Your task to perform on an android device: Show the shopping cart on target.com. Image 0: 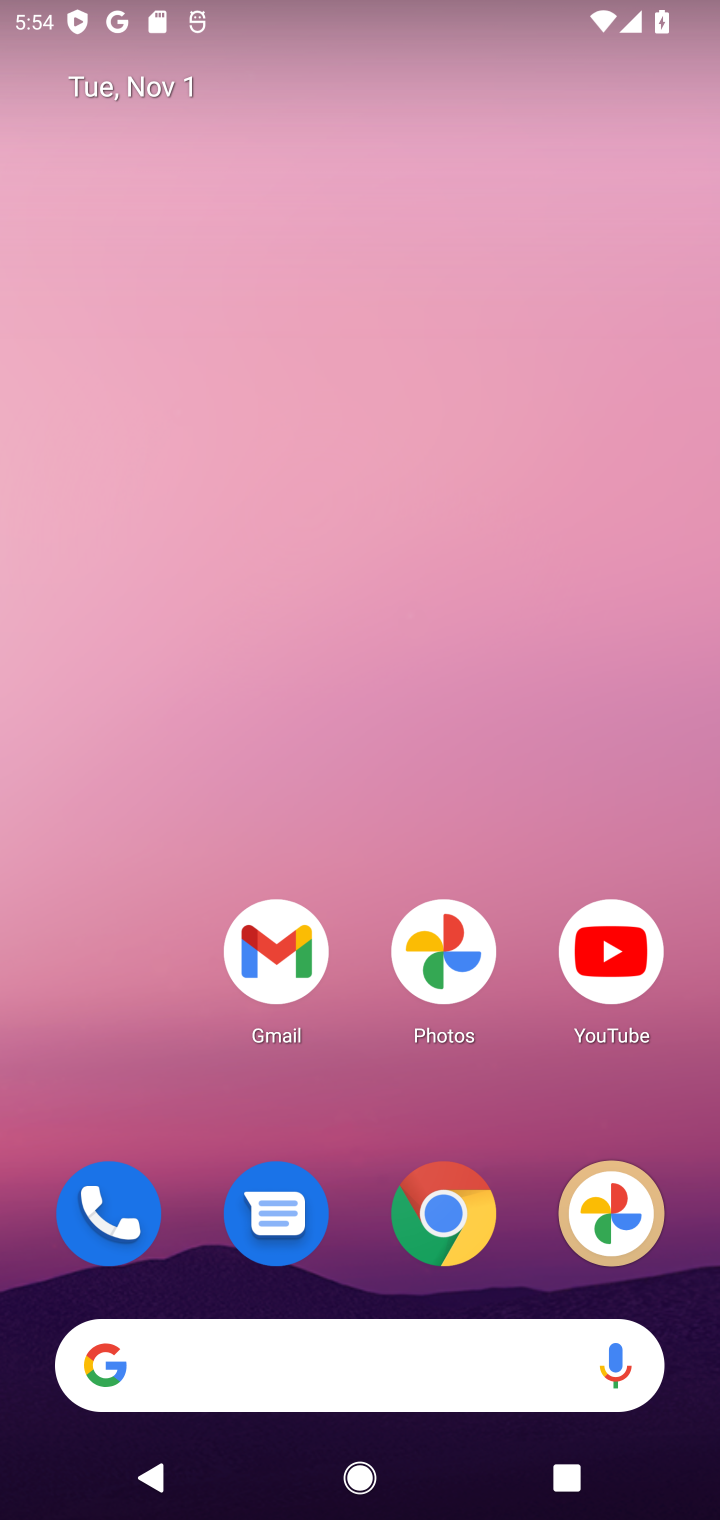
Step 0: click (445, 1219)
Your task to perform on an android device: Show the shopping cart on target.com. Image 1: 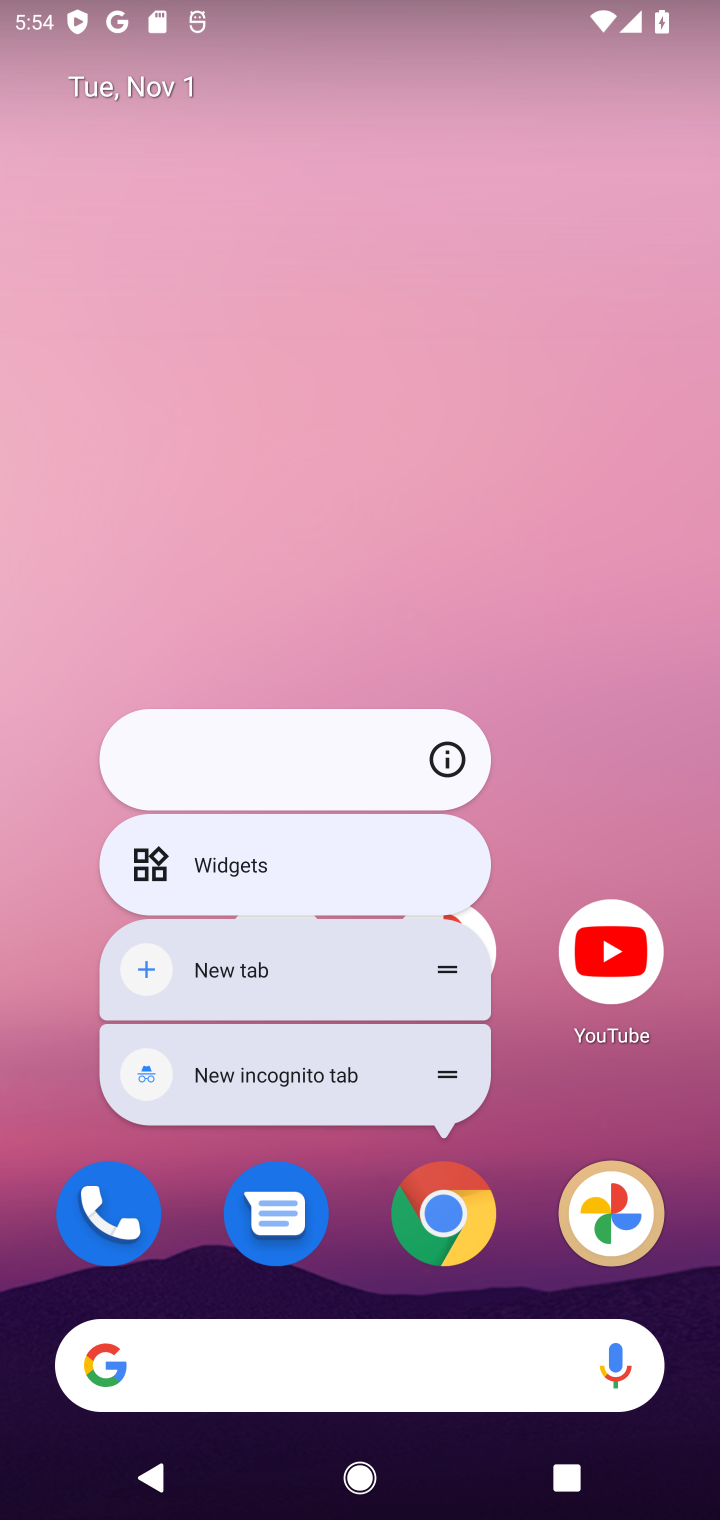
Step 1: click (445, 1219)
Your task to perform on an android device: Show the shopping cart on target.com. Image 2: 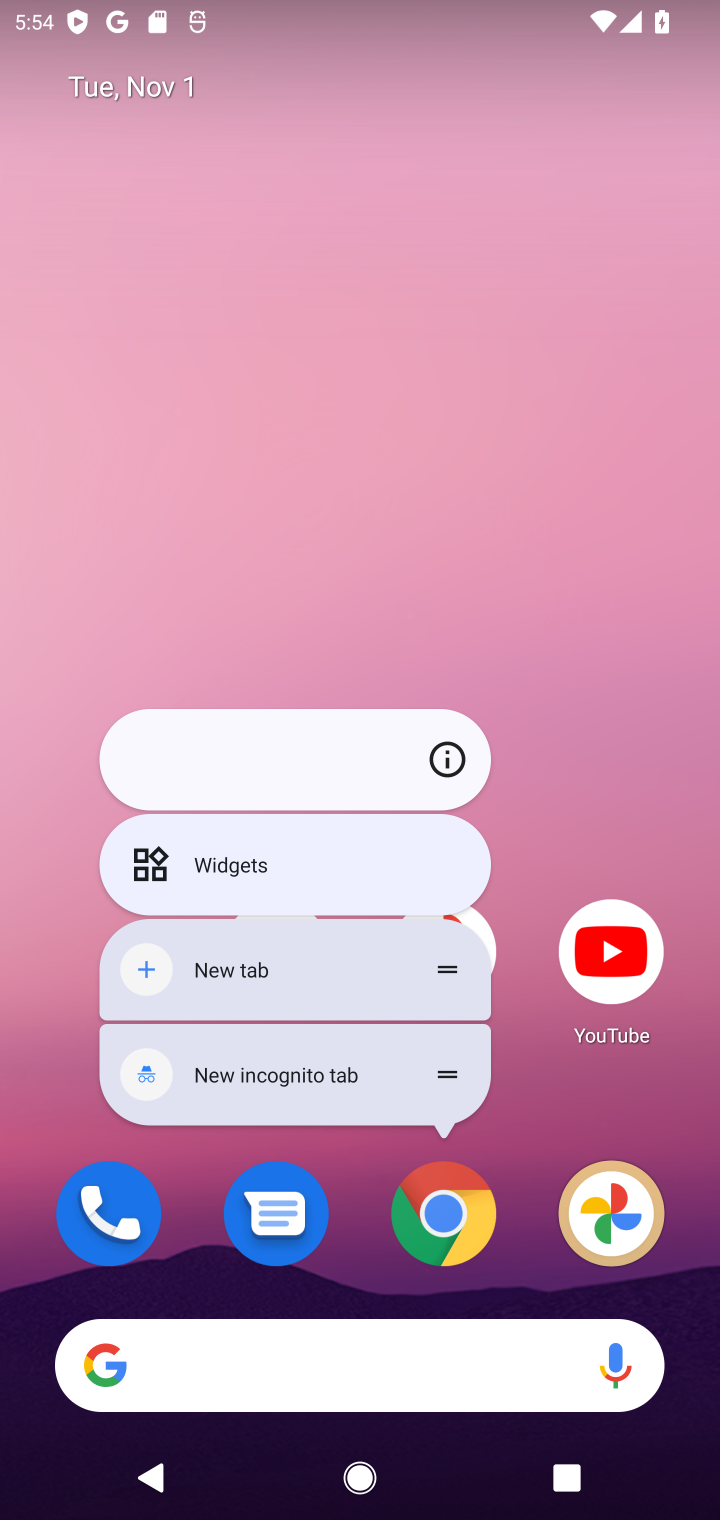
Step 2: click (441, 1225)
Your task to perform on an android device: Show the shopping cart on target.com. Image 3: 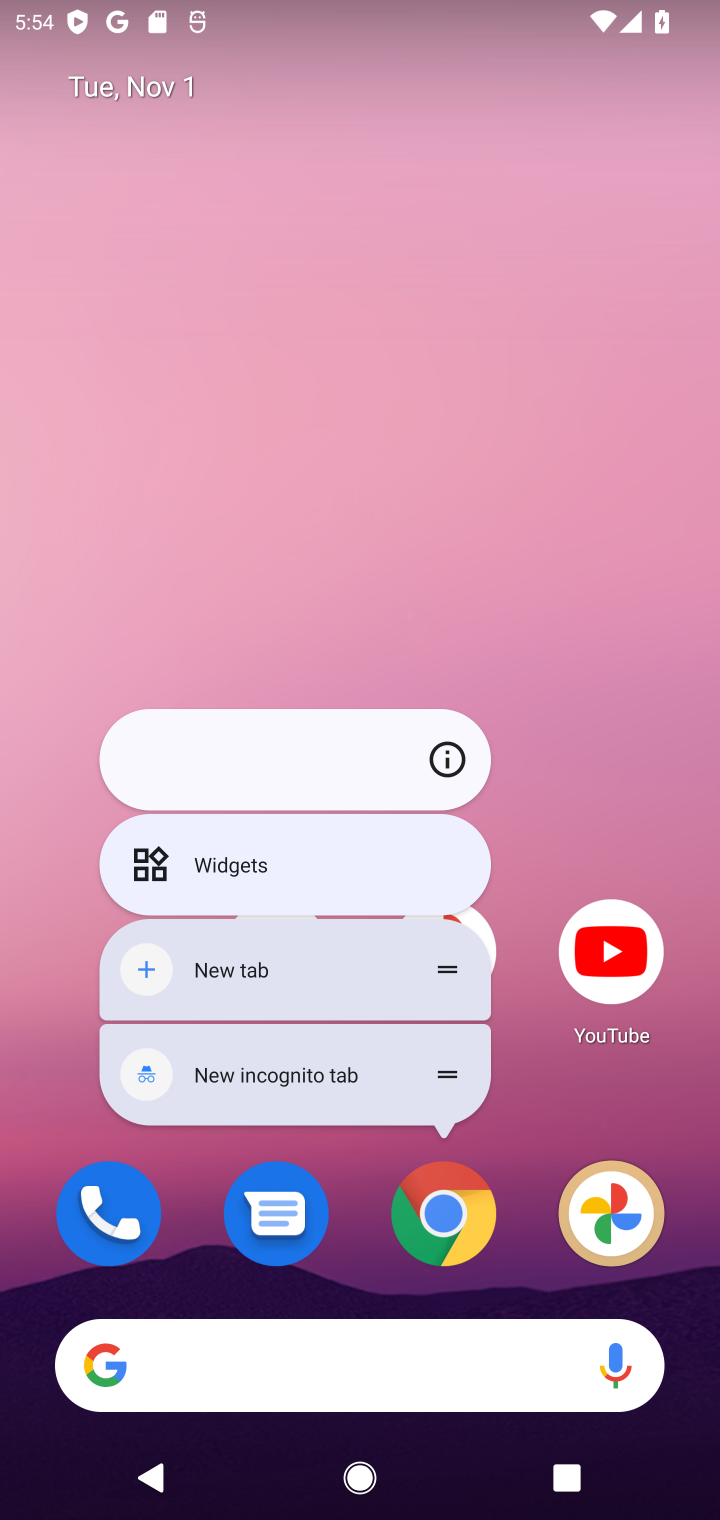
Step 3: click (445, 1242)
Your task to perform on an android device: Show the shopping cart on target.com. Image 4: 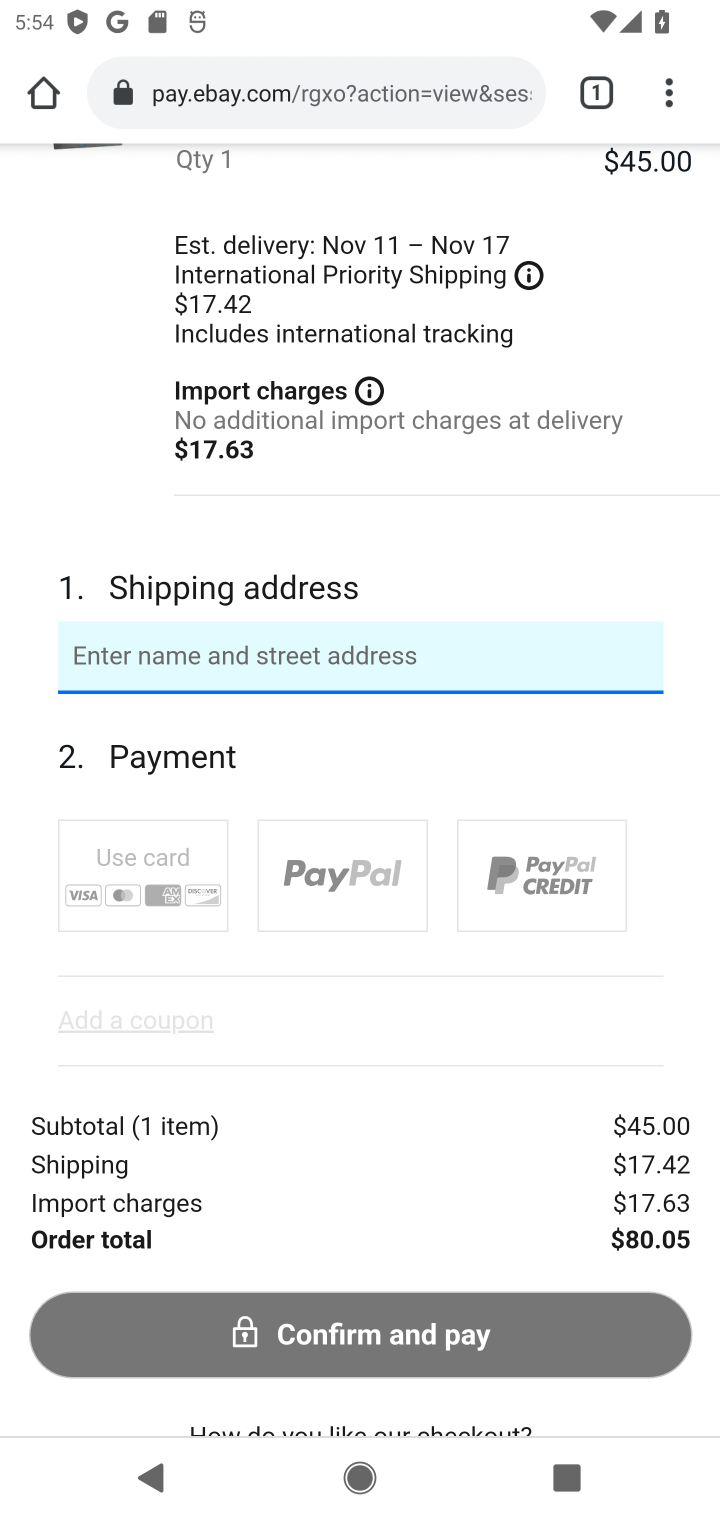
Step 4: click (366, 93)
Your task to perform on an android device: Show the shopping cart on target.com. Image 5: 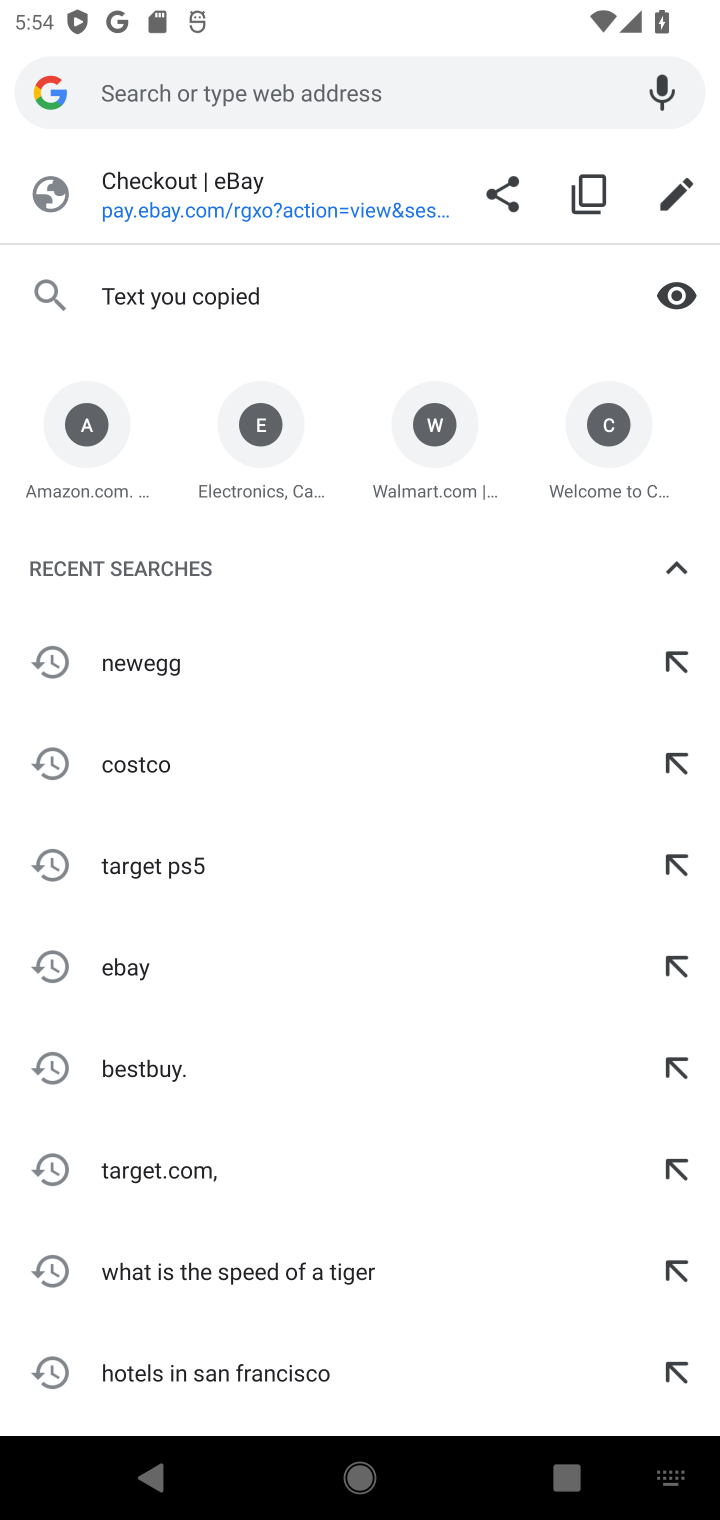
Step 5: type "t"
Your task to perform on an android device: Show the shopping cart on target.com. Image 6: 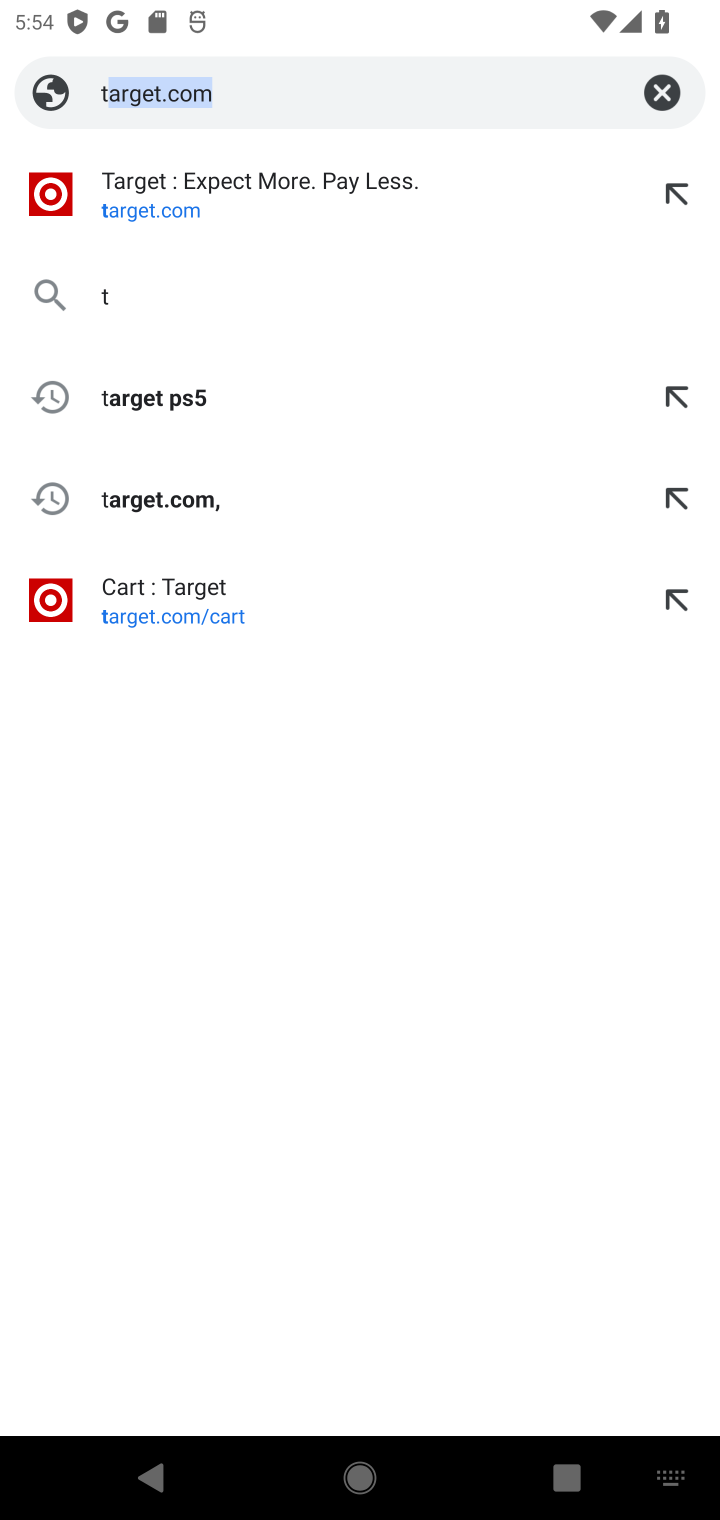
Step 6: click (463, 215)
Your task to perform on an android device: Show the shopping cart on target.com. Image 7: 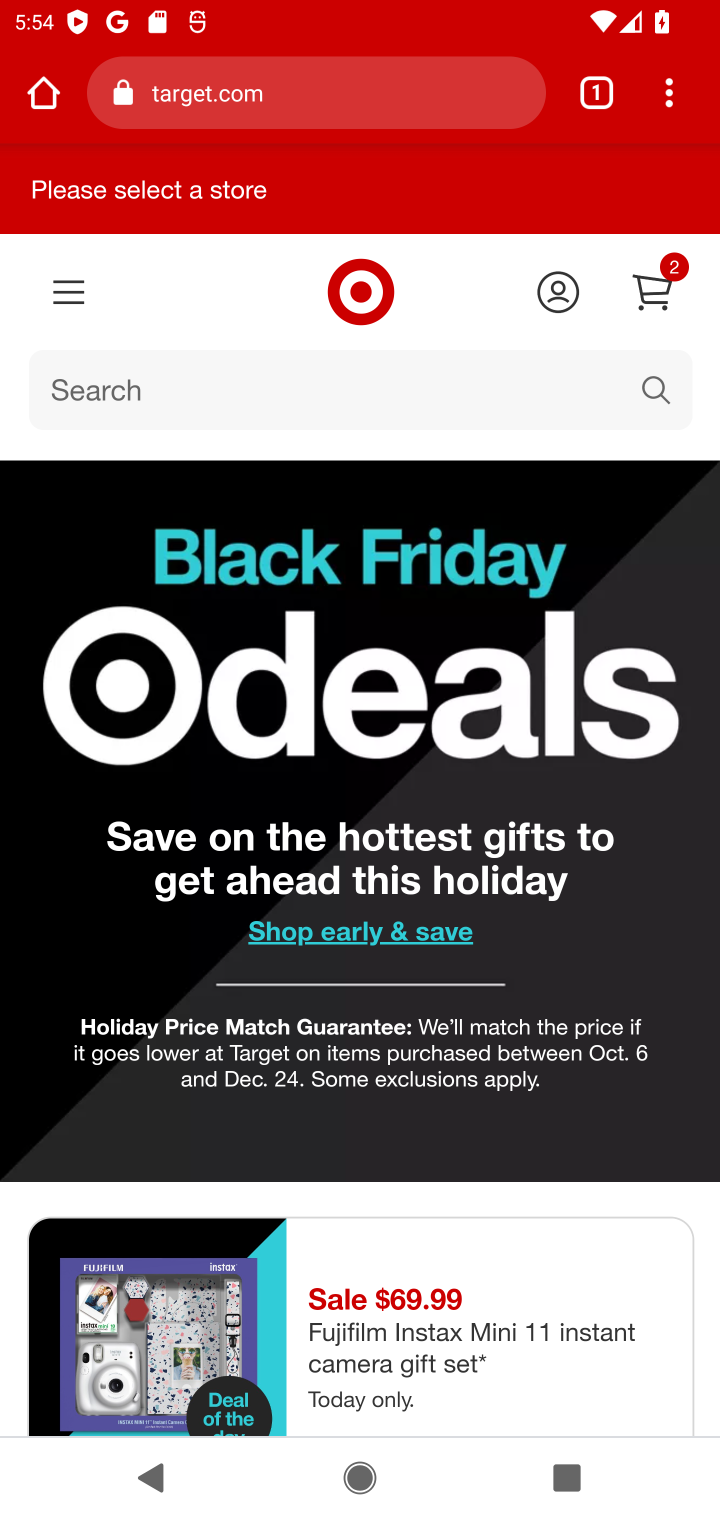
Step 7: click (646, 280)
Your task to perform on an android device: Show the shopping cart on target.com. Image 8: 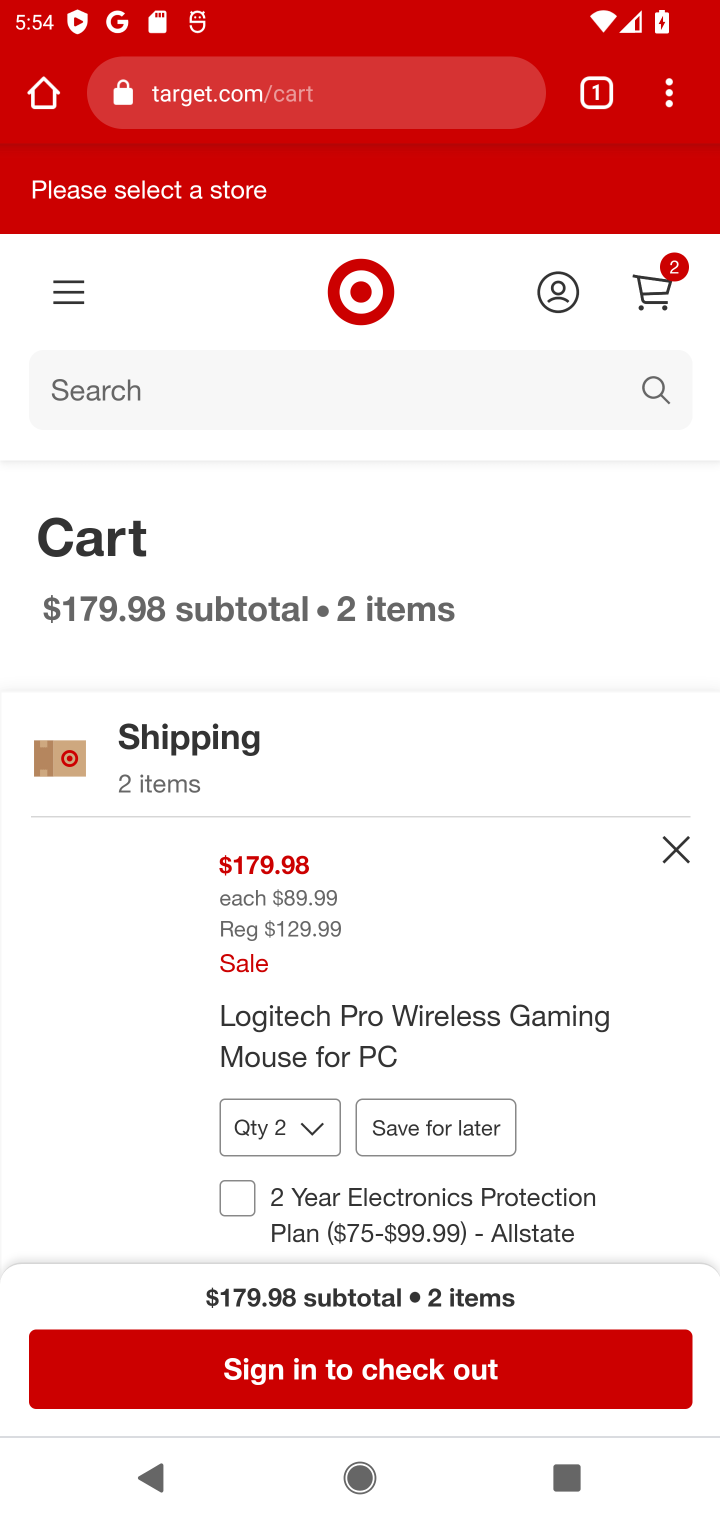
Step 8: drag from (451, 1177) to (427, 668)
Your task to perform on an android device: Show the shopping cart on target.com. Image 9: 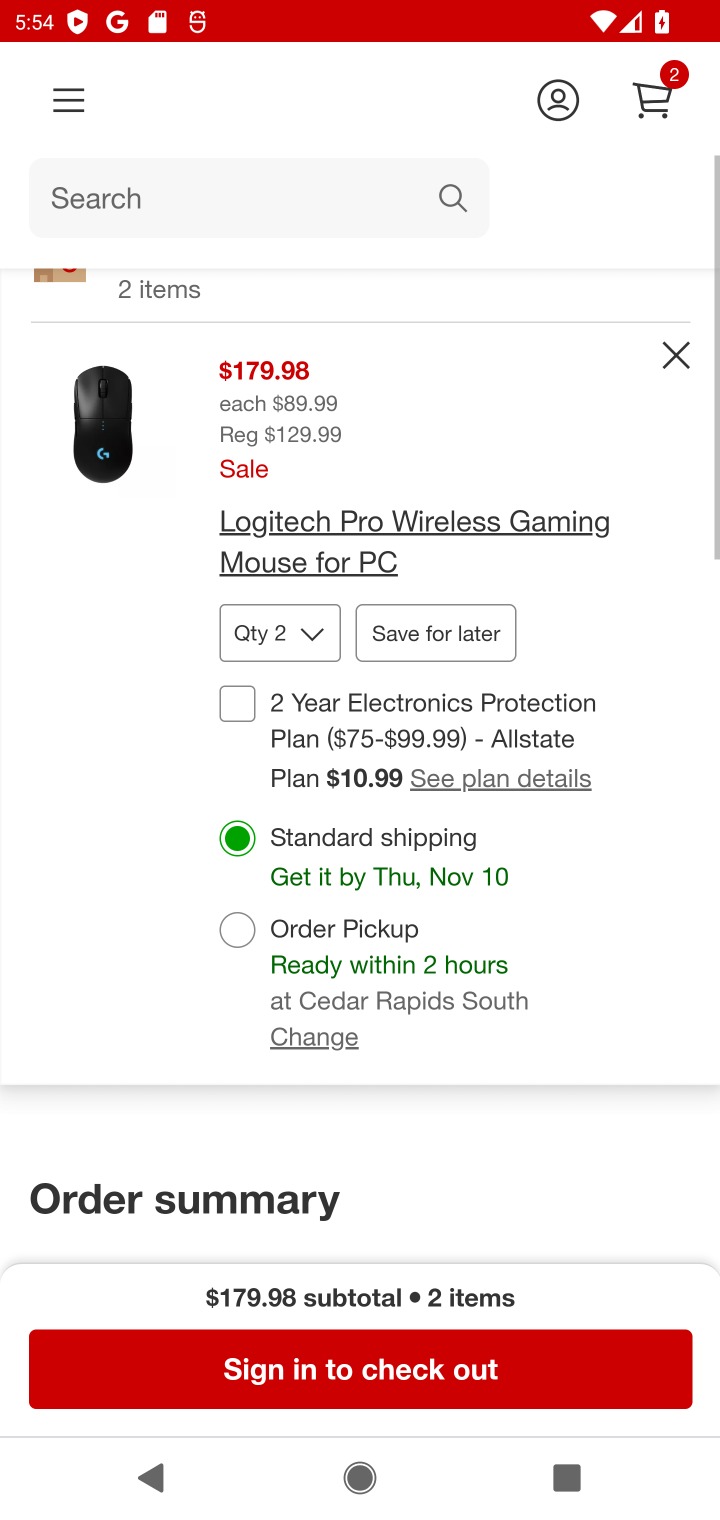
Step 9: drag from (437, 870) to (437, 510)
Your task to perform on an android device: Show the shopping cart on target.com. Image 10: 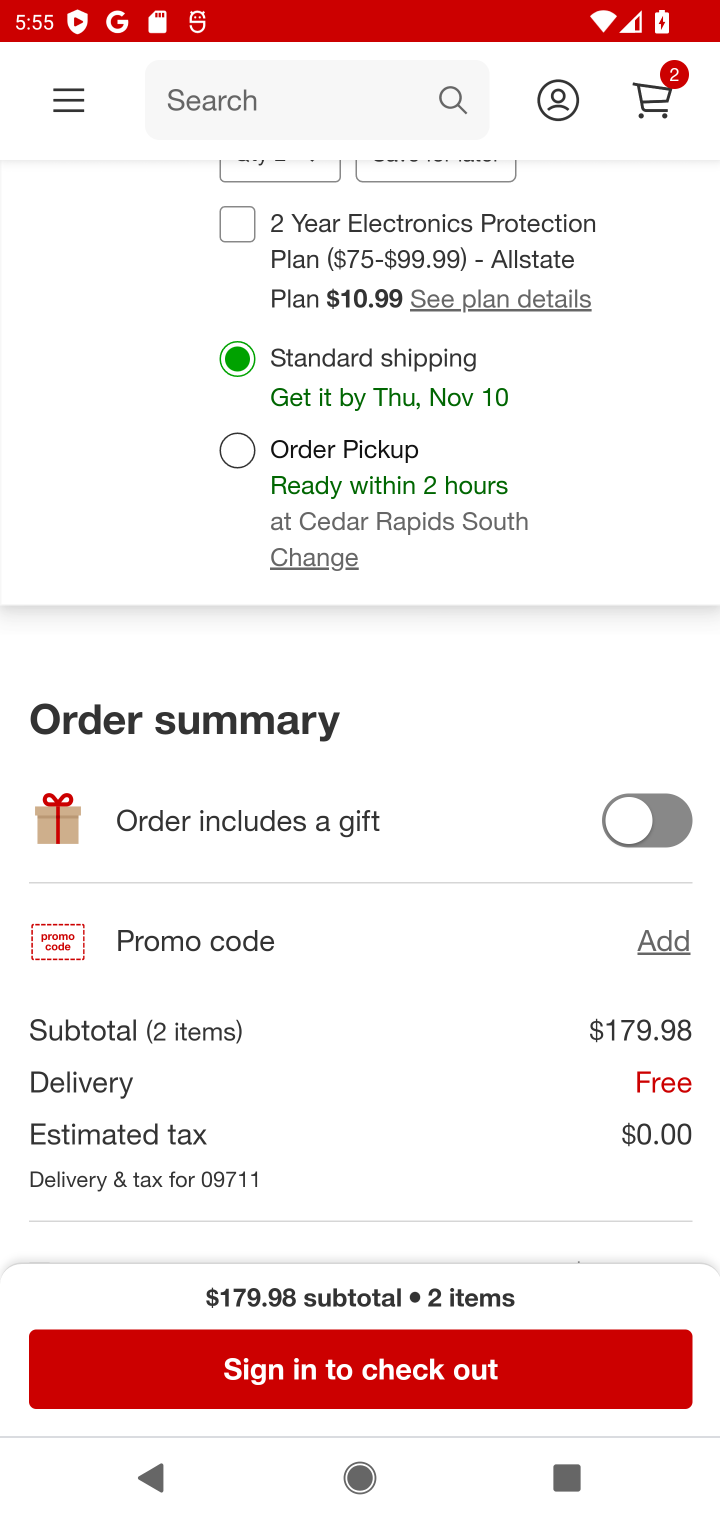
Step 10: drag from (401, 1268) to (437, 516)
Your task to perform on an android device: Show the shopping cart on target.com. Image 11: 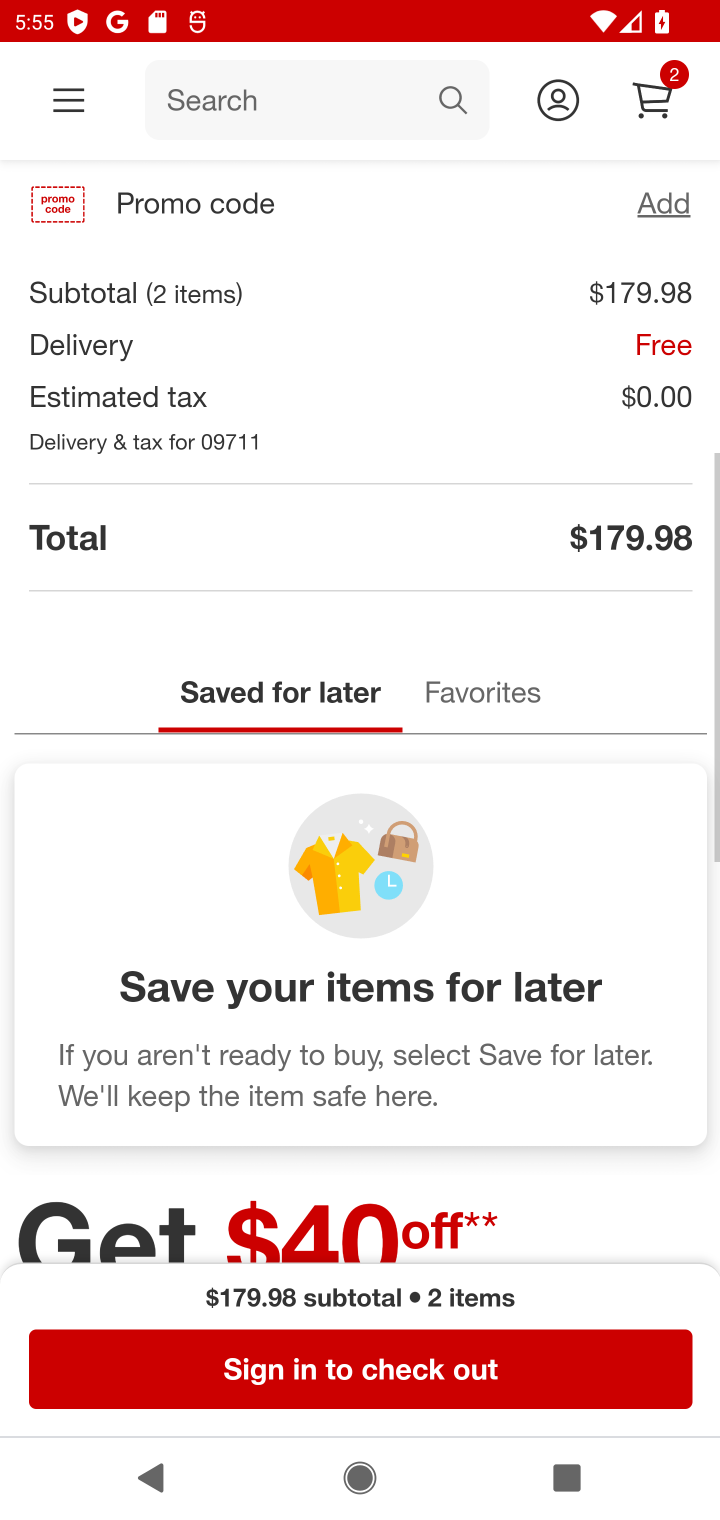
Step 11: drag from (288, 845) to (491, 212)
Your task to perform on an android device: Show the shopping cart on target.com. Image 12: 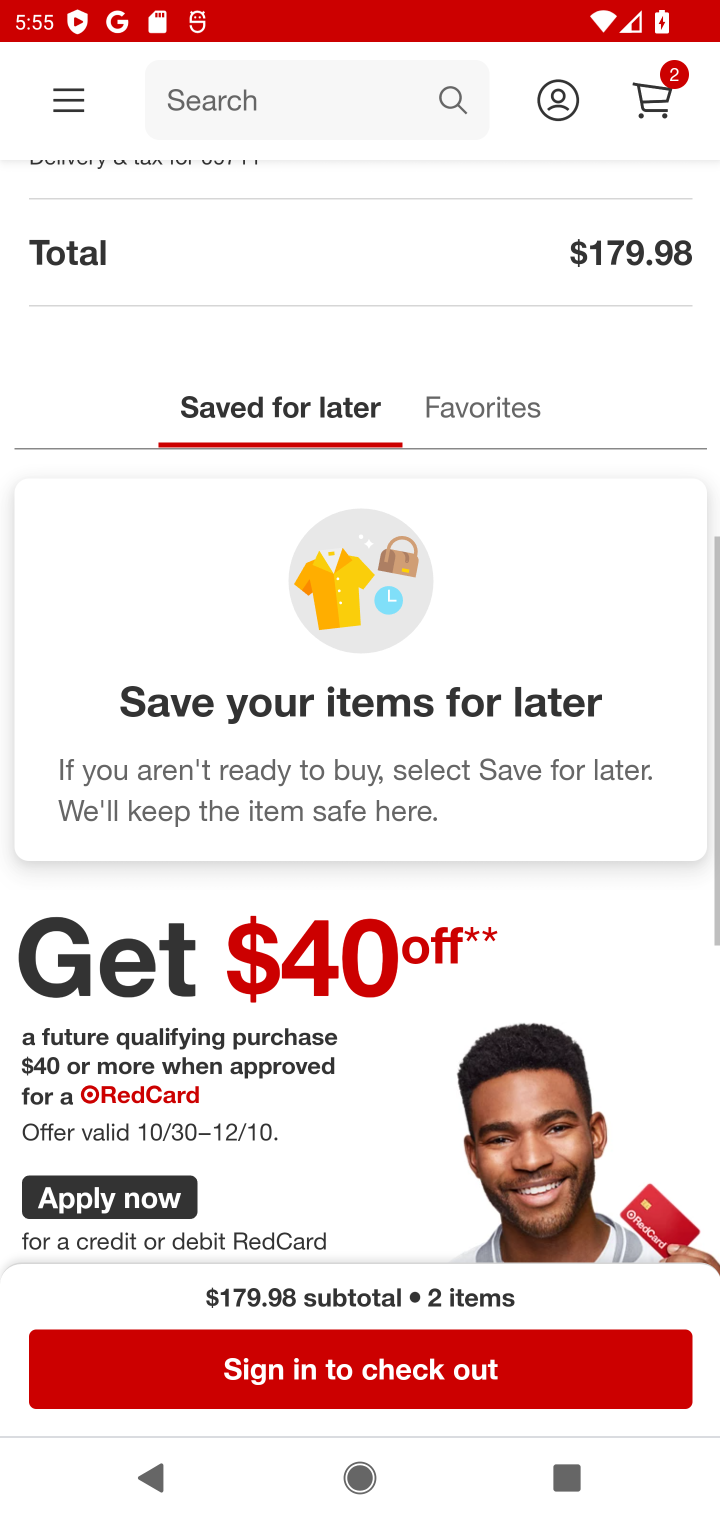
Step 12: drag from (455, 361) to (479, 217)
Your task to perform on an android device: Show the shopping cart on target.com. Image 13: 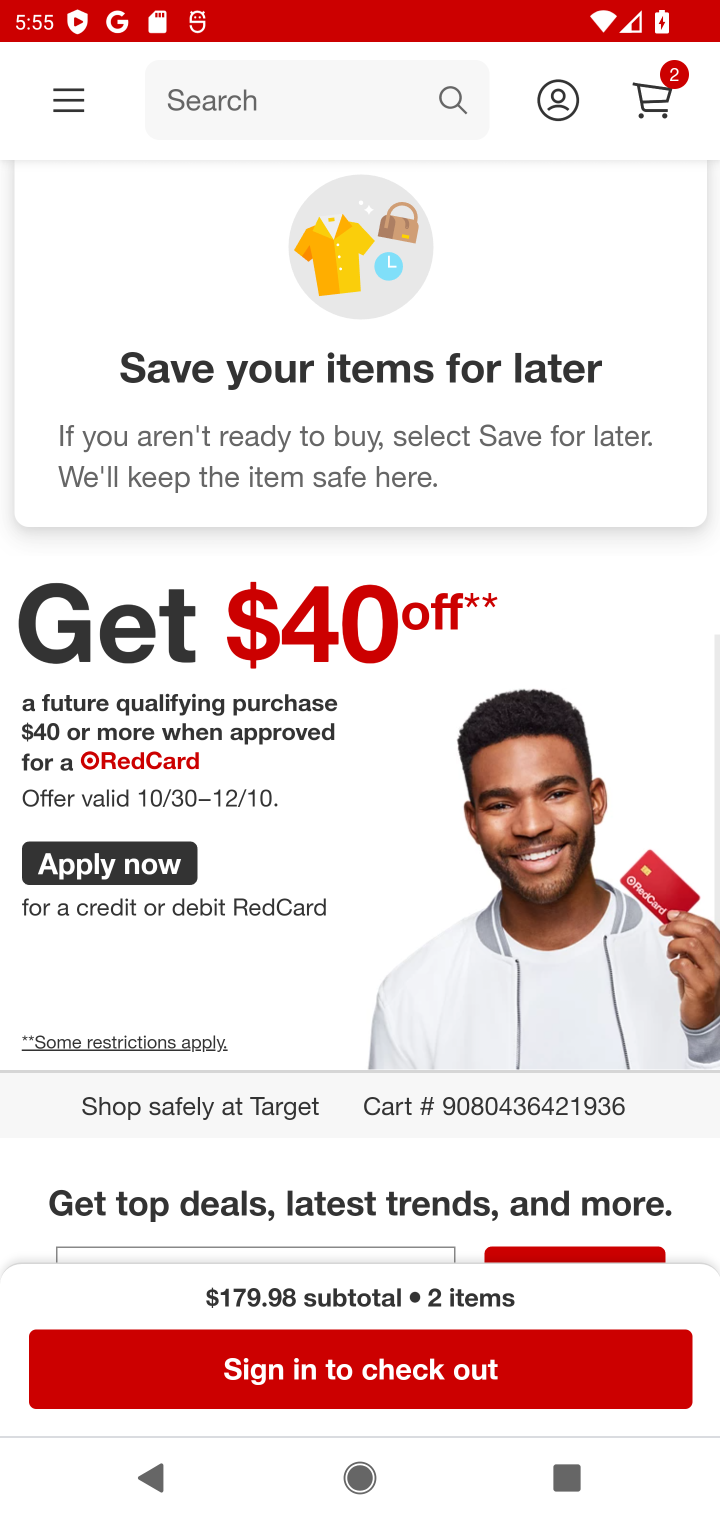
Step 13: drag from (441, 774) to (515, 253)
Your task to perform on an android device: Show the shopping cart on target.com. Image 14: 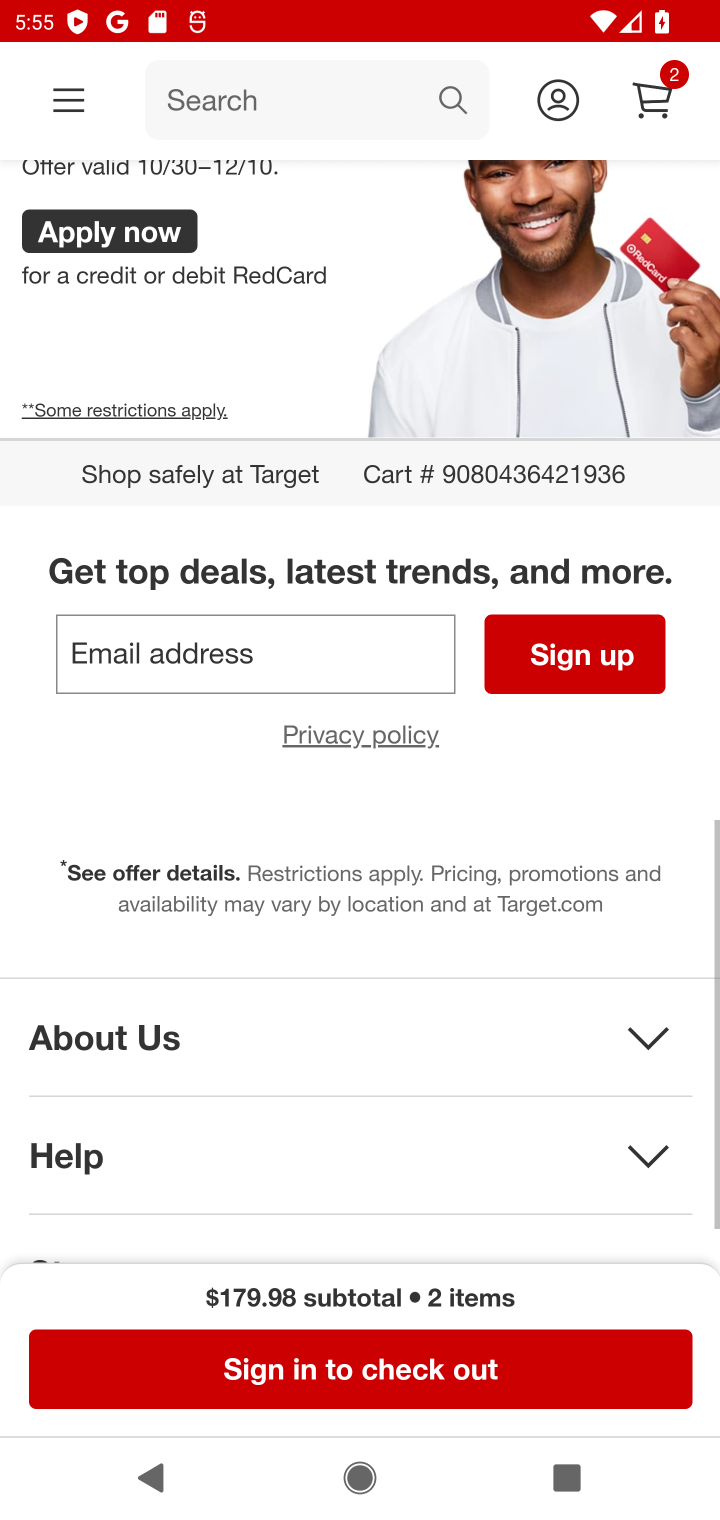
Step 14: click (566, 248)
Your task to perform on an android device: Show the shopping cart on target.com. Image 15: 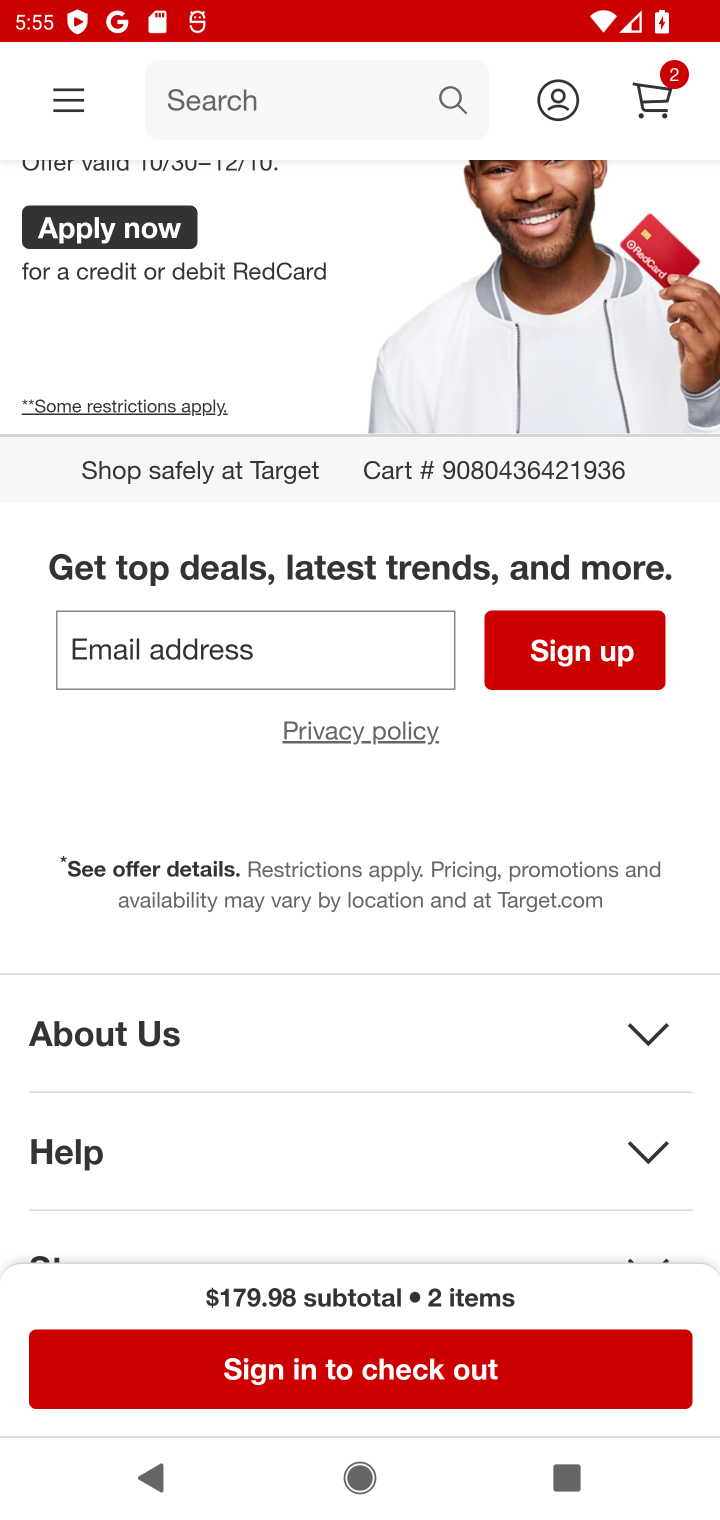
Step 15: drag from (535, 363) to (549, 238)
Your task to perform on an android device: Show the shopping cart on target.com. Image 16: 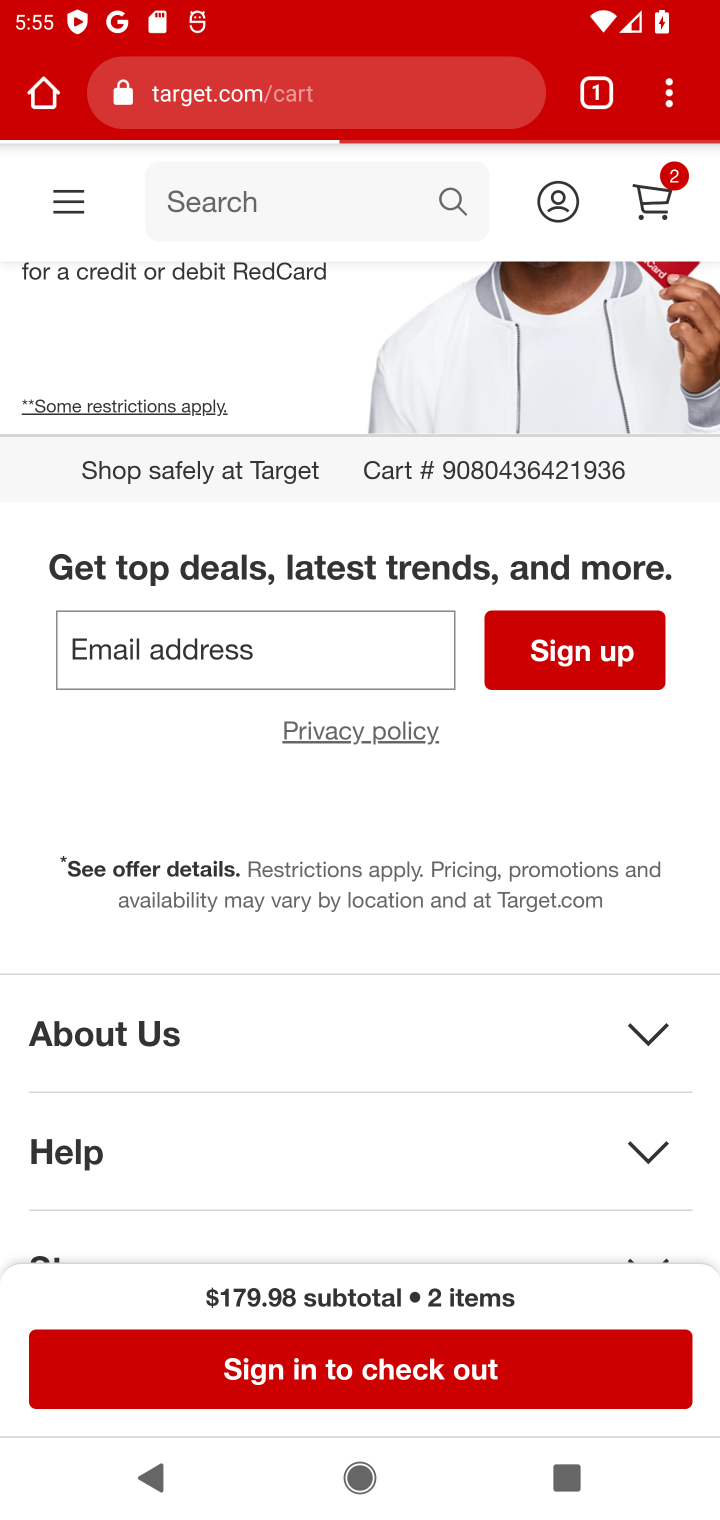
Step 16: drag from (530, 530) to (538, 384)
Your task to perform on an android device: Show the shopping cart on target.com. Image 17: 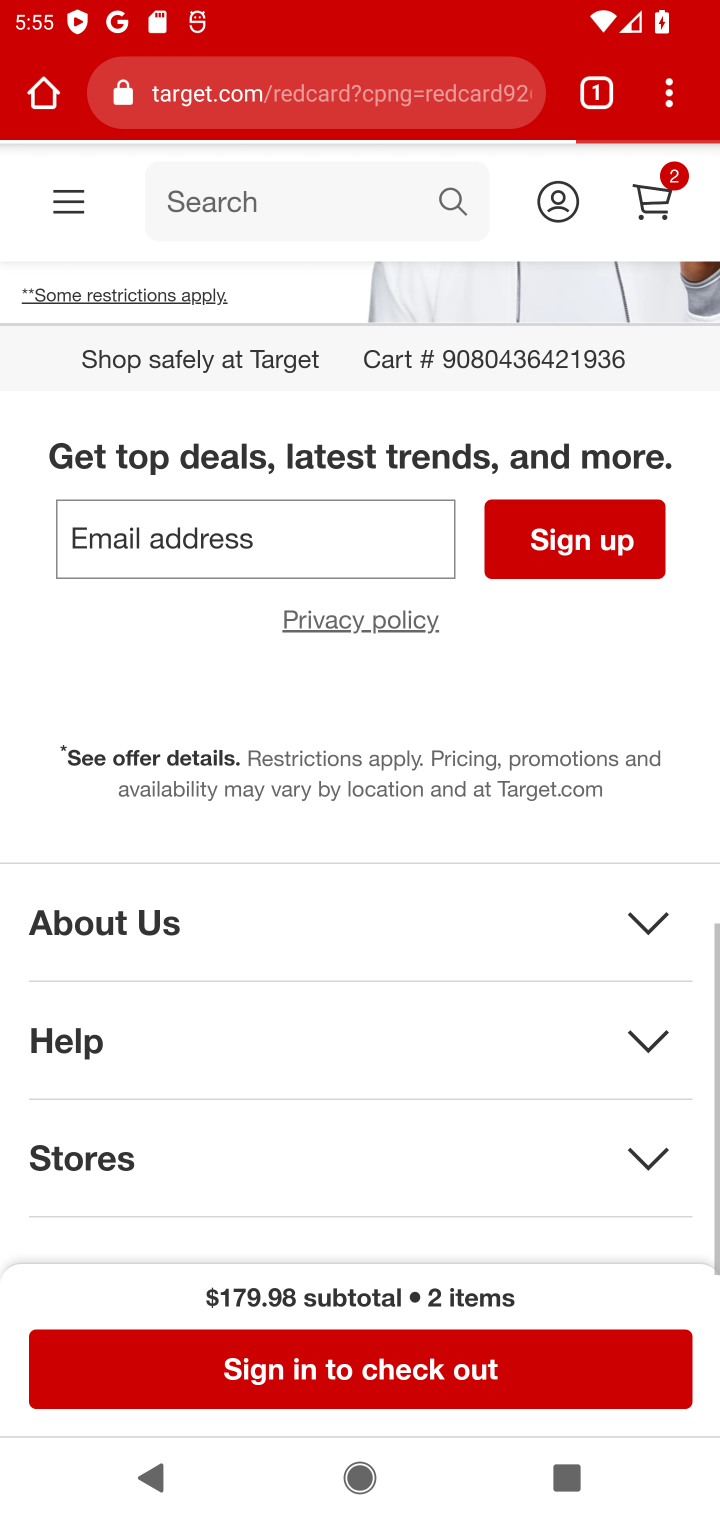
Step 17: click (467, 518)
Your task to perform on an android device: Show the shopping cart on target.com. Image 18: 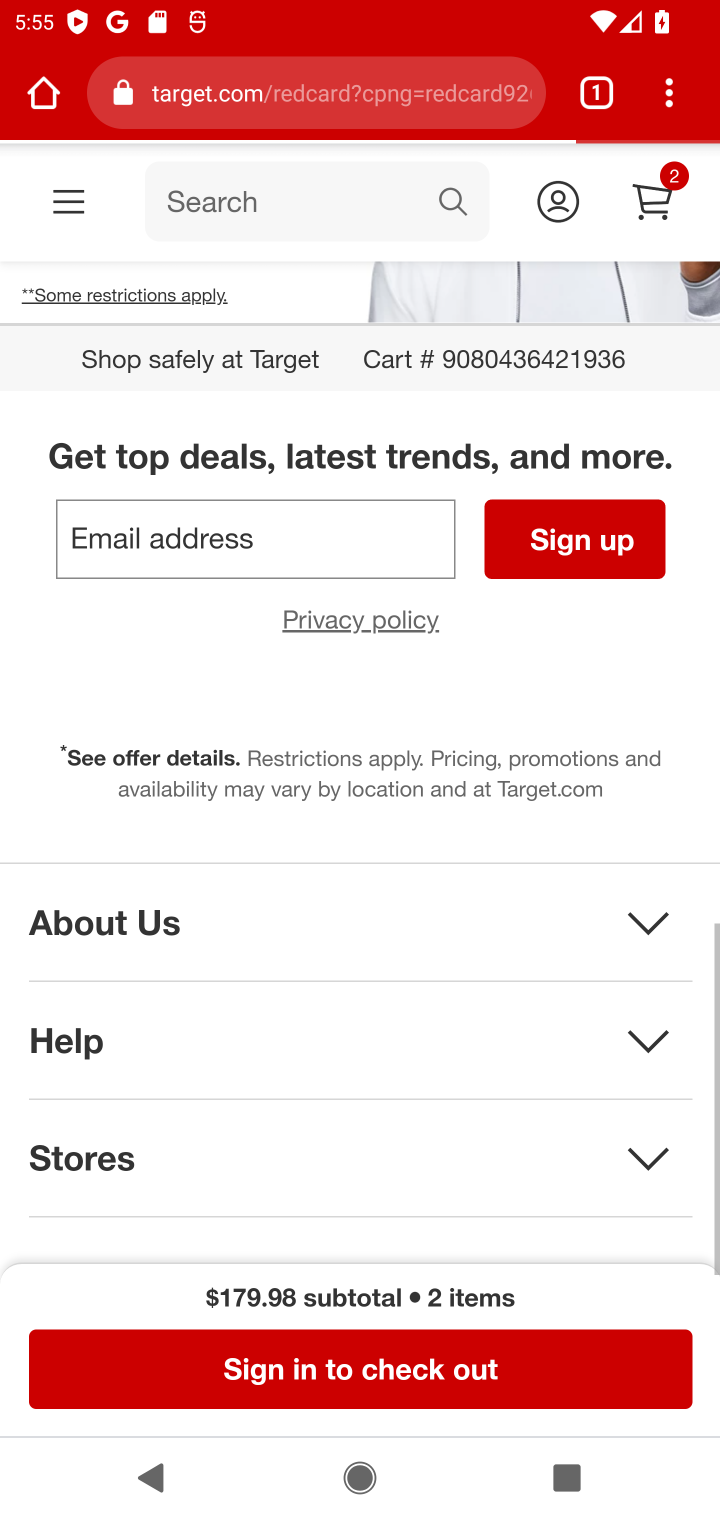
Step 18: task complete